Your task to perform on an android device: Open settings Image 0: 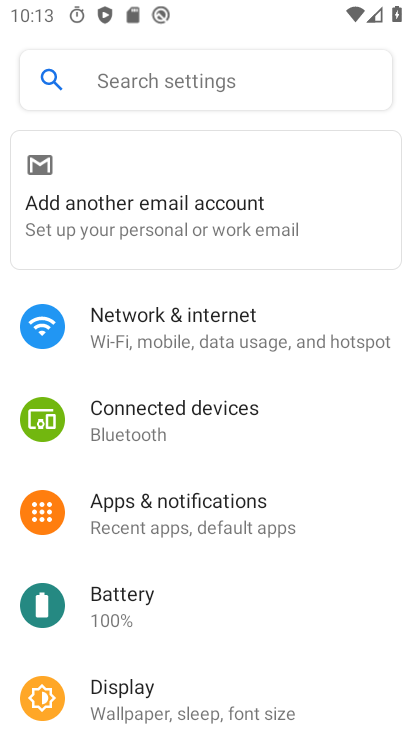
Step 0: press home button
Your task to perform on an android device: Open settings Image 1: 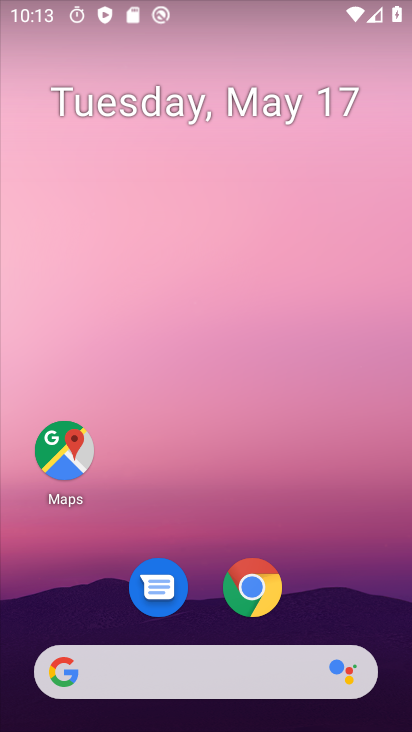
Step 1: drag from (368, 585) to (332, 201)
Your task to perform on an android device: Open settings Image 2: 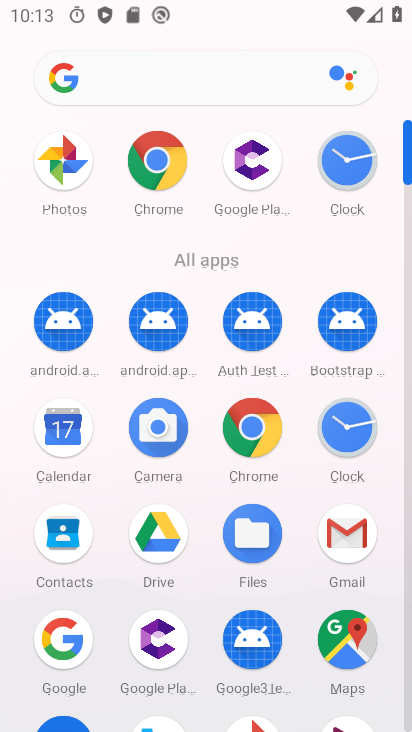
Step 2: drag from (298, 630) to (296, 348)
Your task to perform on an android device: Open settings Image 3: 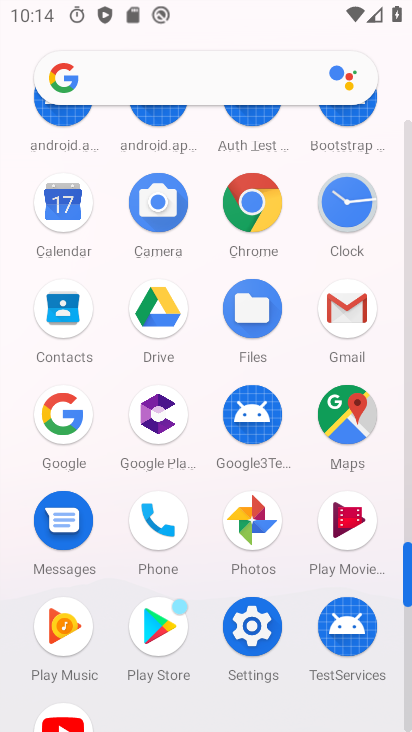
Step 3: click (264, 621)
Your task to perform on an android device: Open settings Image 4: 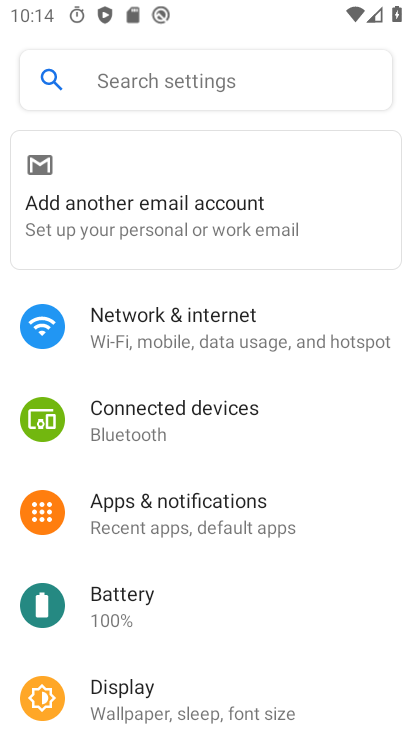
Step 4: task complete